Your task to perform on an android device: When is my next meeting? Image 0: 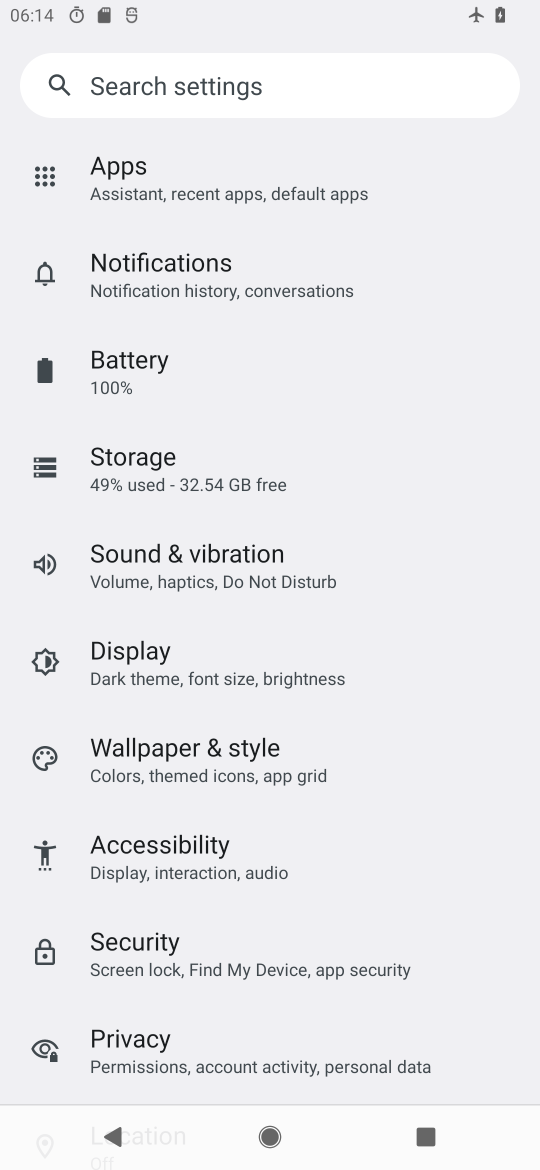
Step 0: press home button
Your task to perform on an android device: When is my next meeting? Image 1: 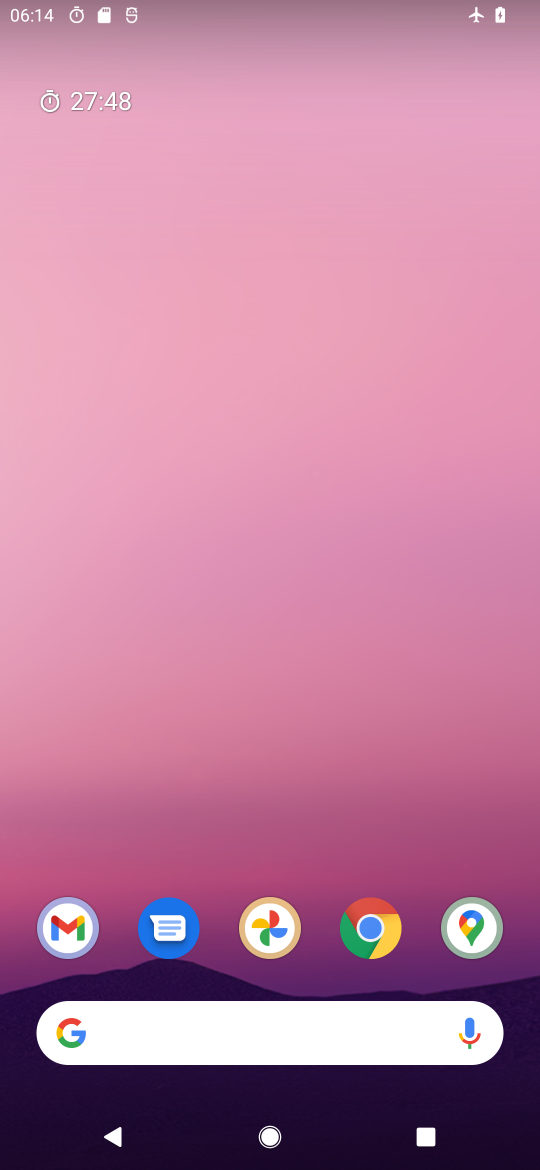
Step 1: drag from (246, 985) to (259, 407)
Your task to perform on an android device: When is my next meeting? Image 2: 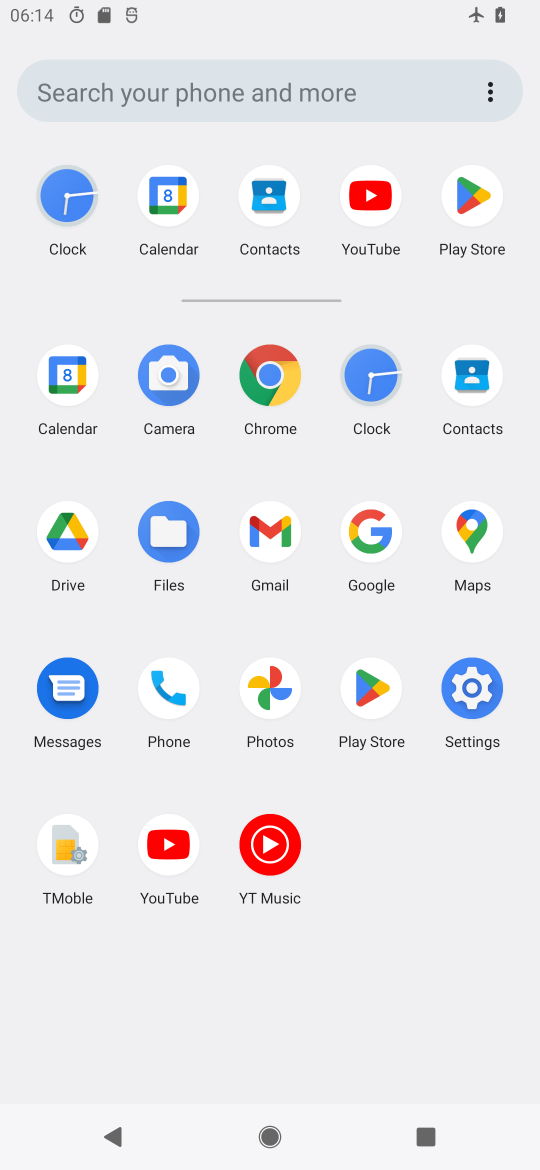
Step 2: click (77, 393)
Your task to perform on an android device: When is my next meeting? Image 3: 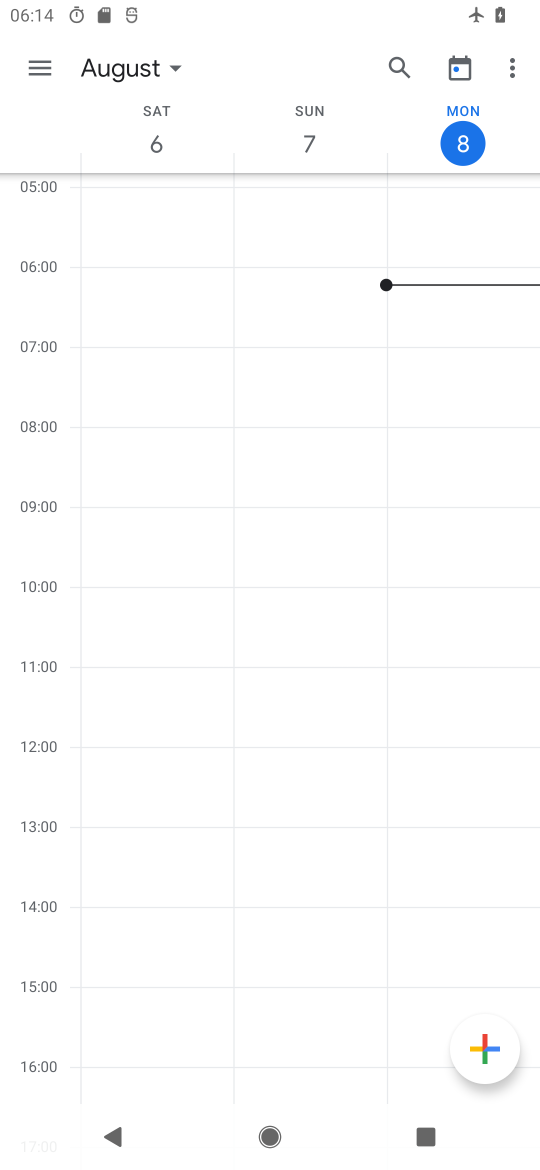
Step 3: click (56, 68)
Your task to perform on an android device: When is my next meeting? Image 4: 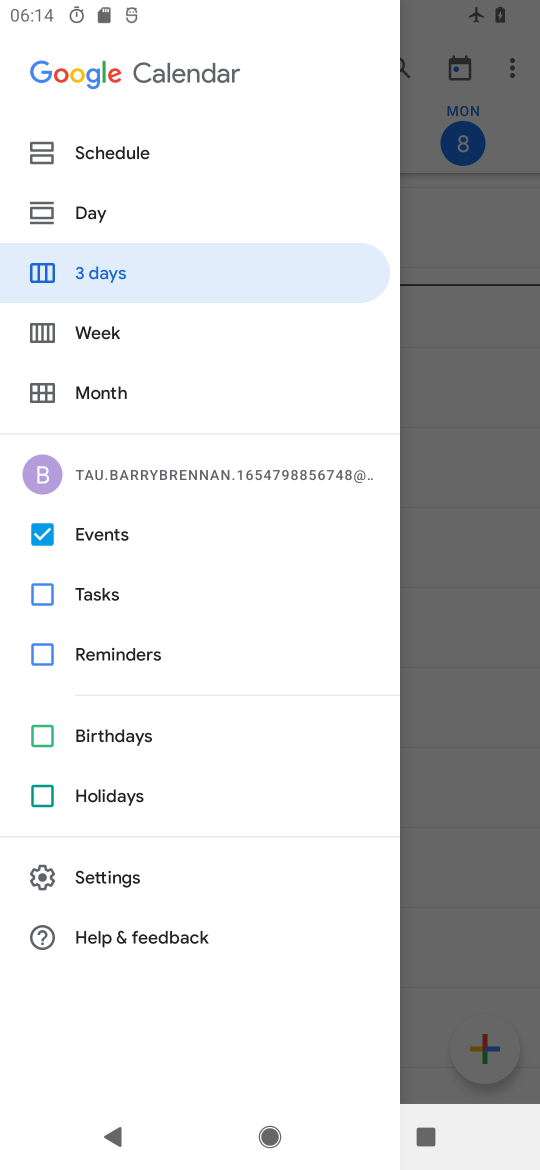
Step 4: click (93, 585)
Your task to perform on an android device: When is my next meeting? Image 5: 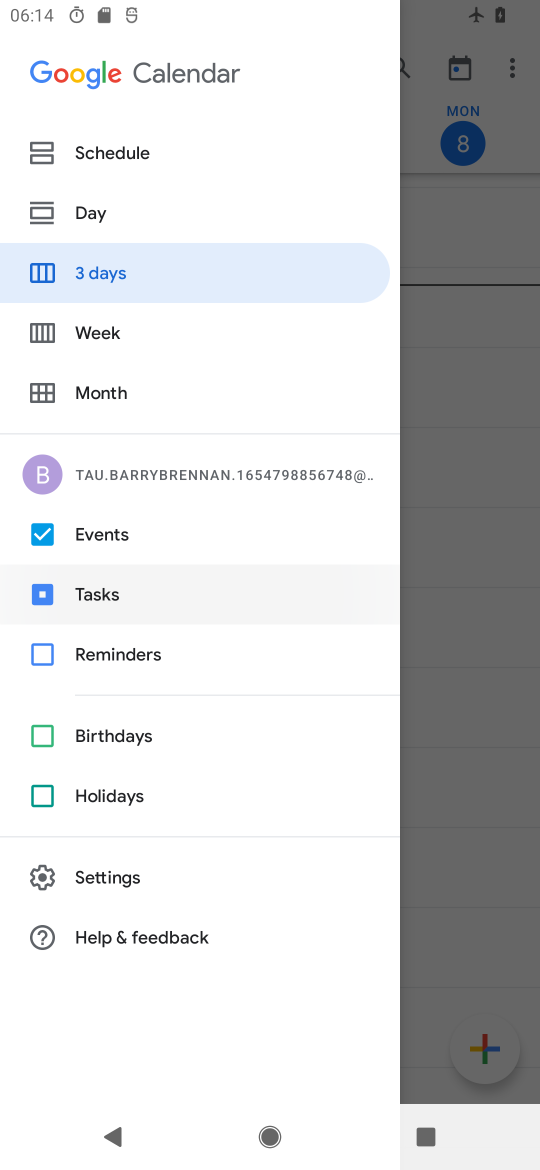
Step 5: click (71, 668)
Your task to perform on an android device: When is my next meeting? Image 6: 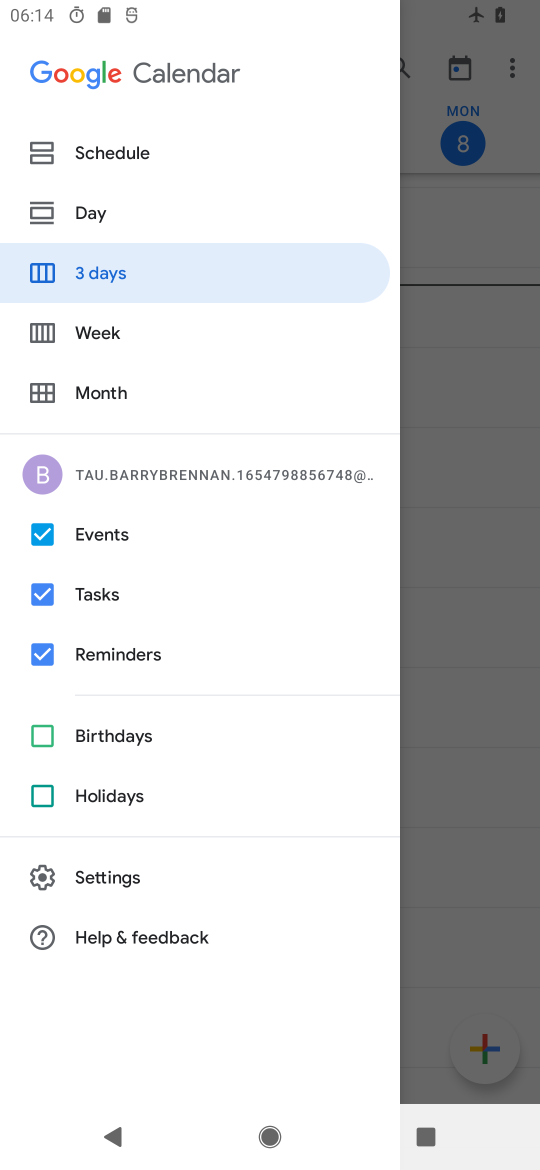
Step 6: click (132, 163)
Your task to perform on an android device: When is my next meeting? Image 7: 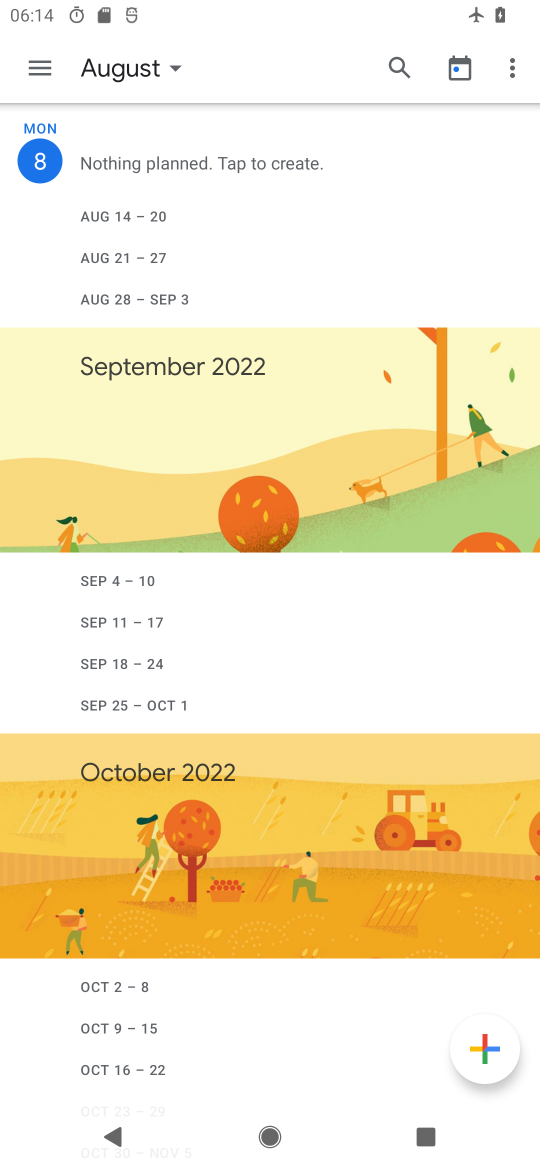
Step 7: task complete